Your task to perform on an android device: toggle airplane mode Image 0: 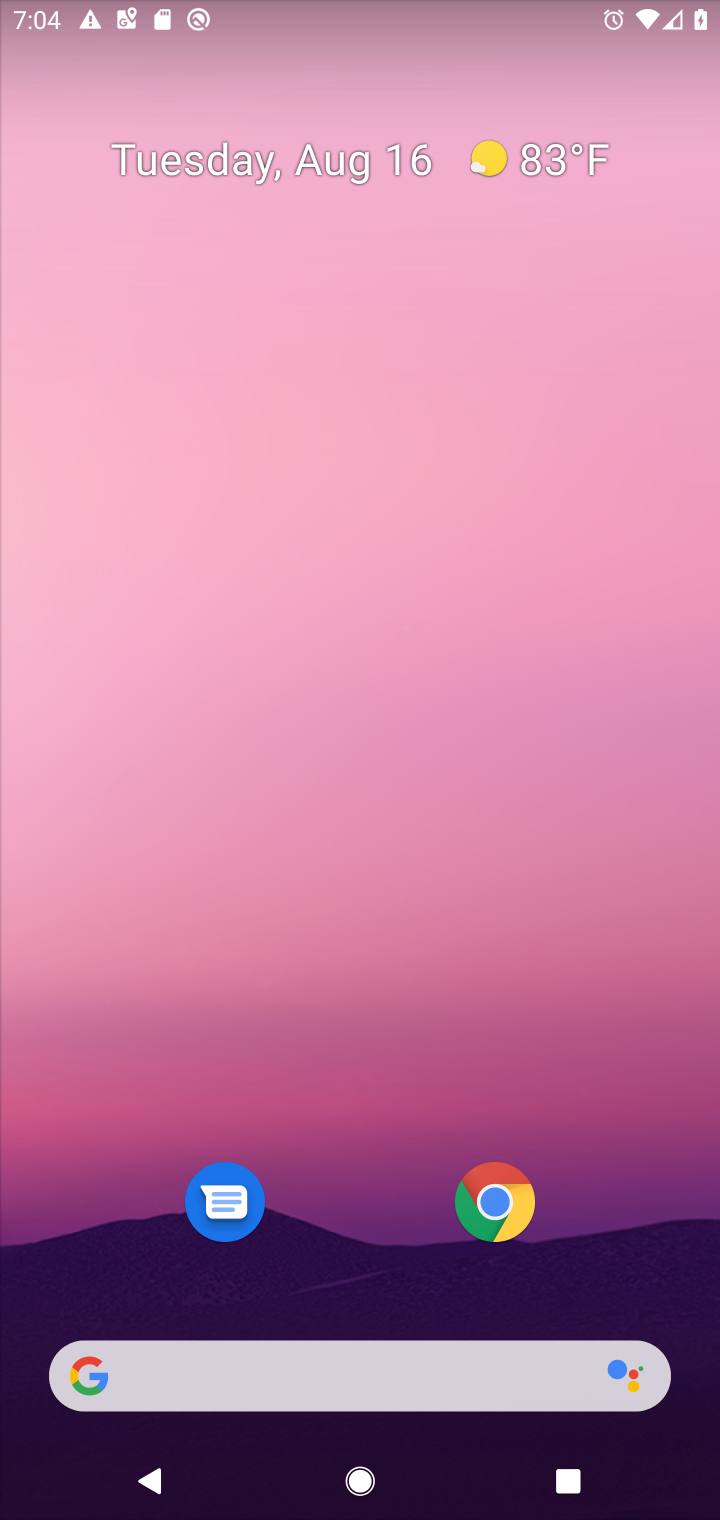
Step 0: drag from (324, 9) to (500, 1303)
Your task to perform on an android device: toggle airplane mode Image 1: 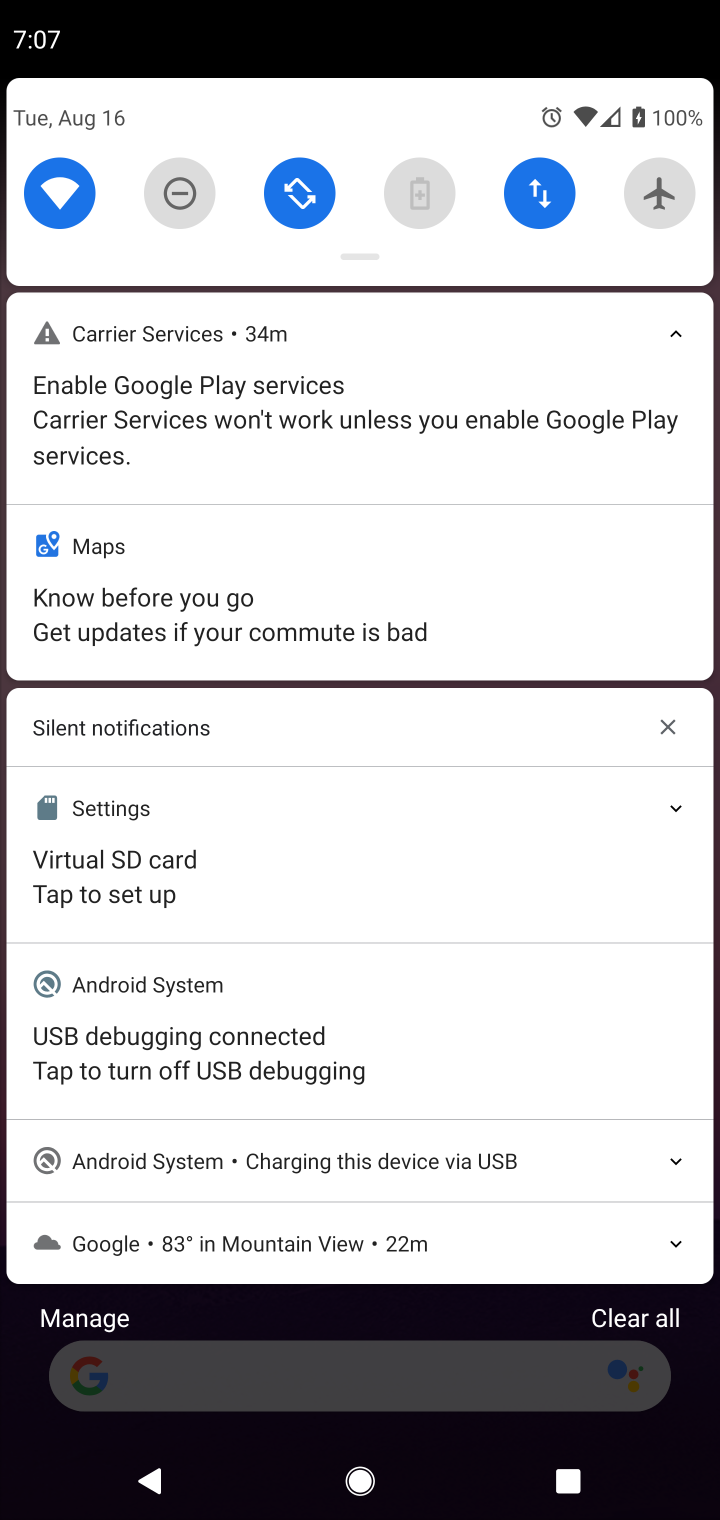
Step 1: click (677, 192)
Your task to perform on an android device: toggle airplane mode Image 2: 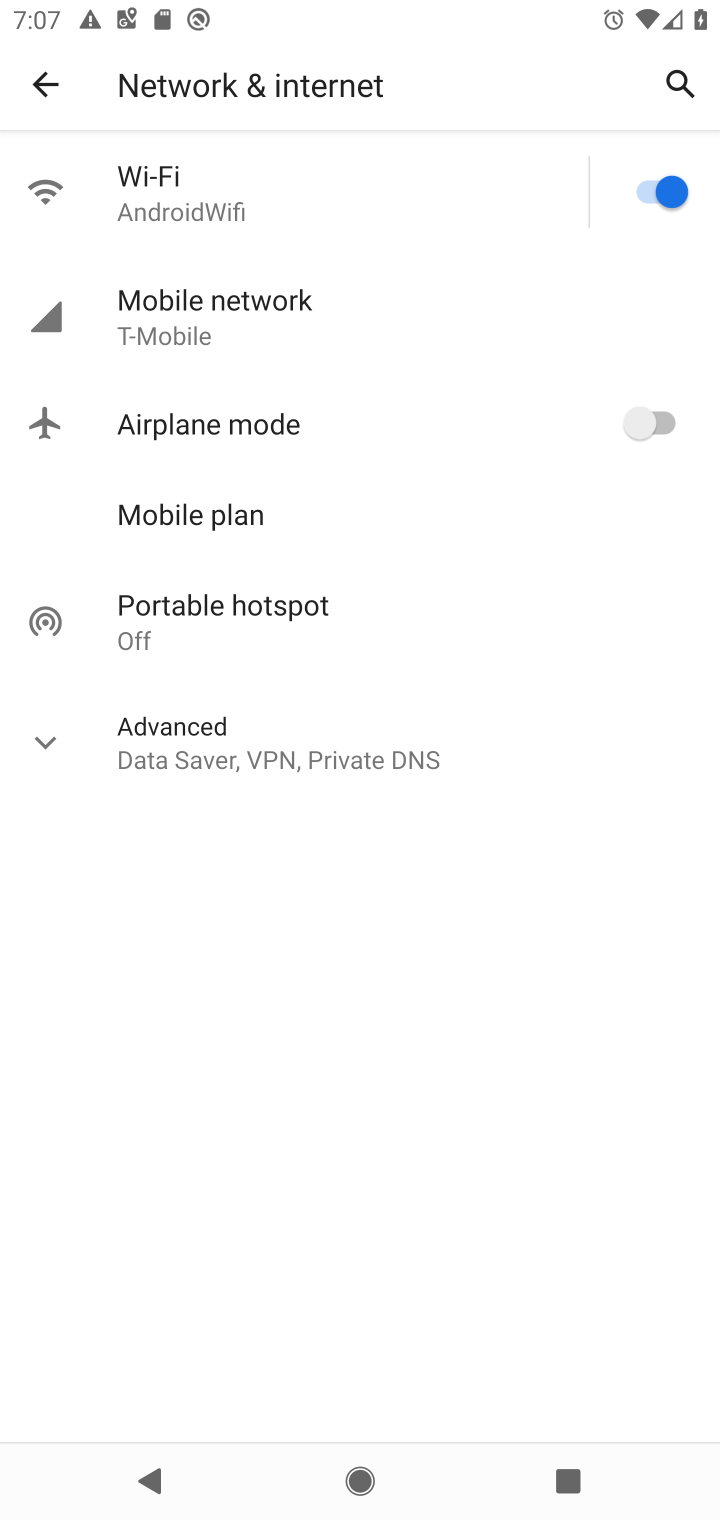
Step 2: click (663, 413)
Your task to perform on an android device: toggle airplane mode Image 3: 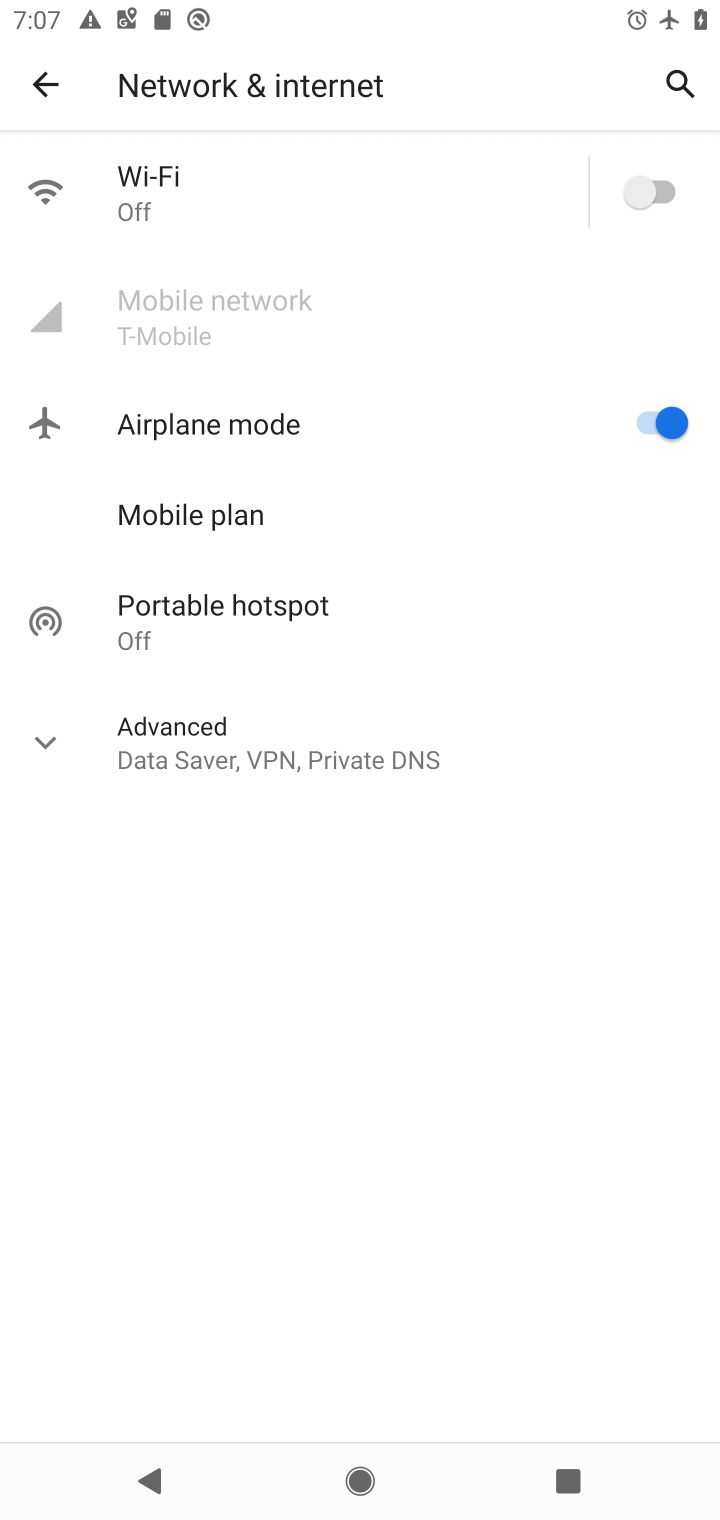
Step 3: task complete